Your task to perform on an android device: open a bookmark in the chrome app Image 0: 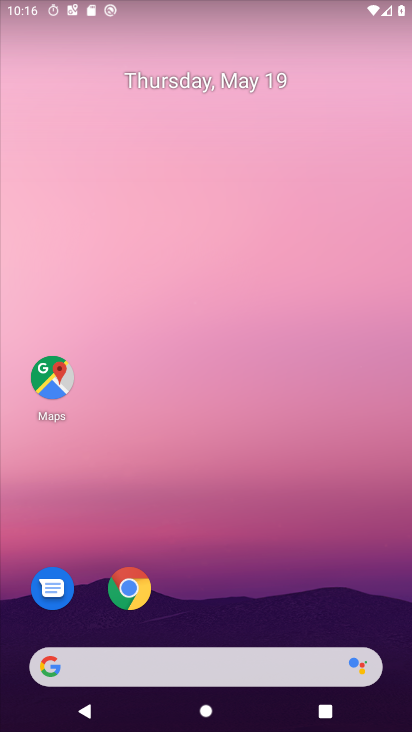
Step 0: press home button
Your task to perform on an android device: open a bookmark in the chrome app Image 1: 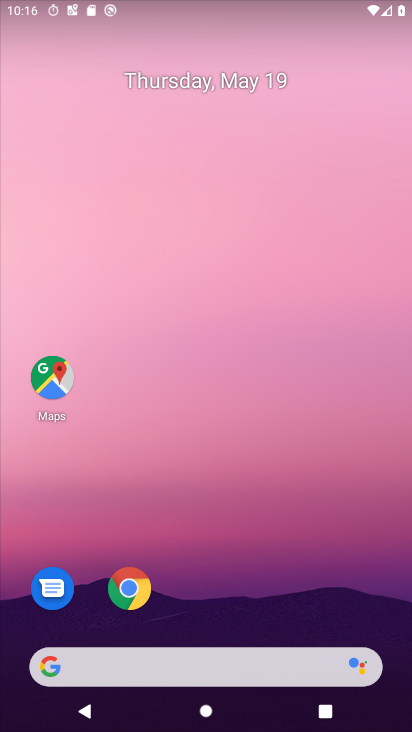
Step 1: click (128, 593)
Your task to perform on an android device: open a bookmark in the chrome app Image 2: 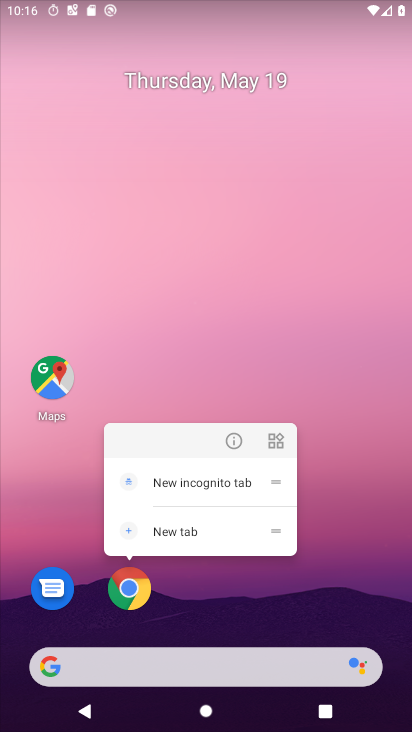
Step 2: click (130, 584)
Your task to perform on an android device: open a bookmark in the chrome app Image 3: 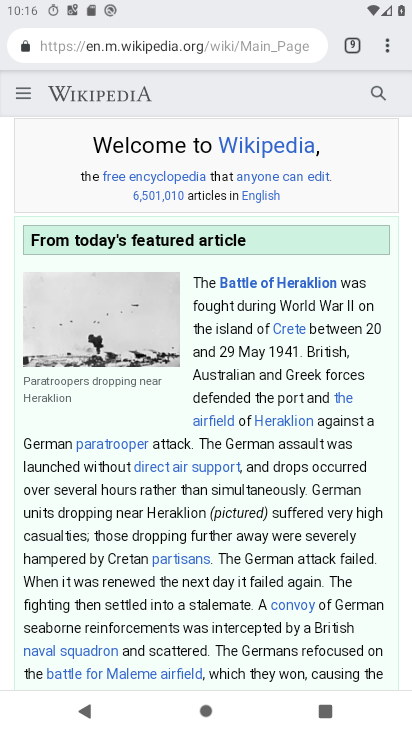
Step 3: task complete